Your task to perform on an android device: Is it going to rain tomorrow? Image 0: 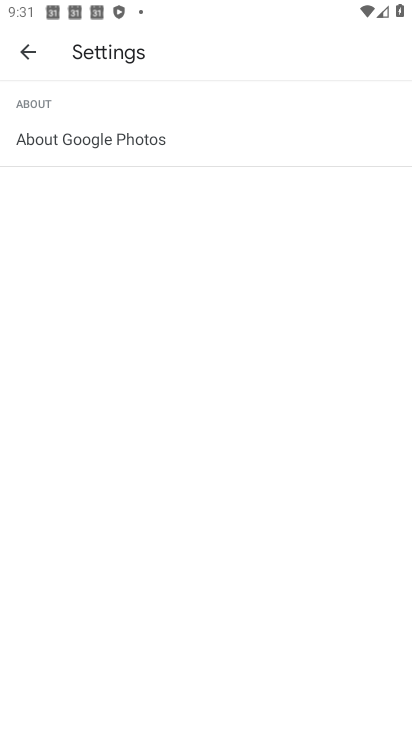
Step 0: press home button
Your task to perform on an android device: Is it going to rain tomorrow? Image 1: 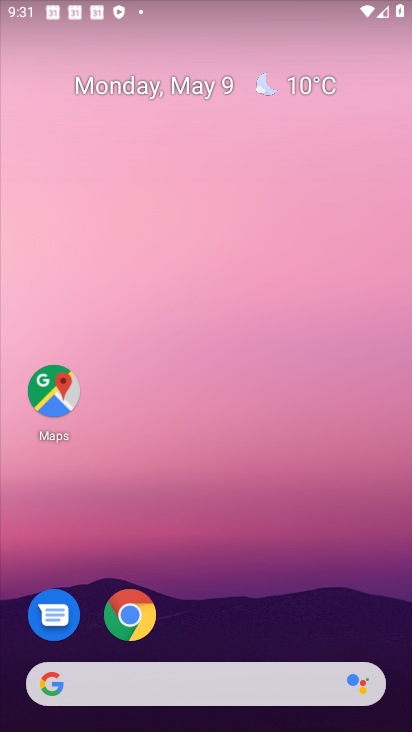
Step 1: click (213, 689)
Your task to perform on an android device: Is it going to rain tomorrow? Image 2: 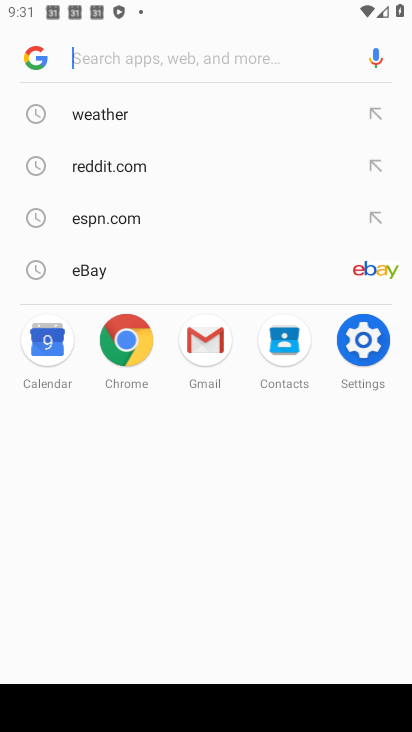
Step 2: type "Is it going to rain tomorrow?"
Your task to perform on an android device: Is it going to rain tomorrow? Image 3: 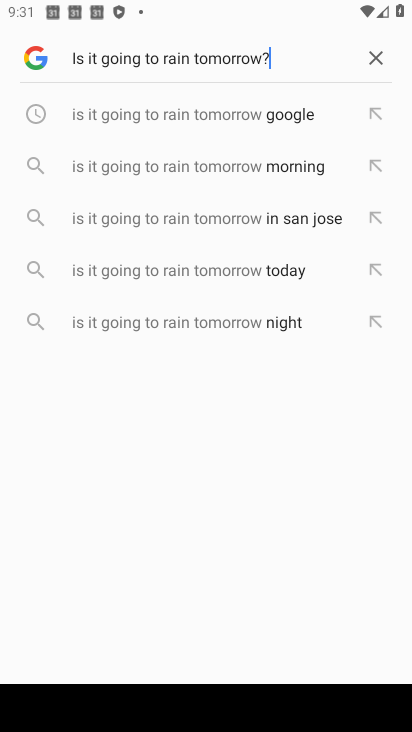
Step 3: click (100, 129)
Your task to perform on an android device: Is it going to rain tomorrow? Image 4: 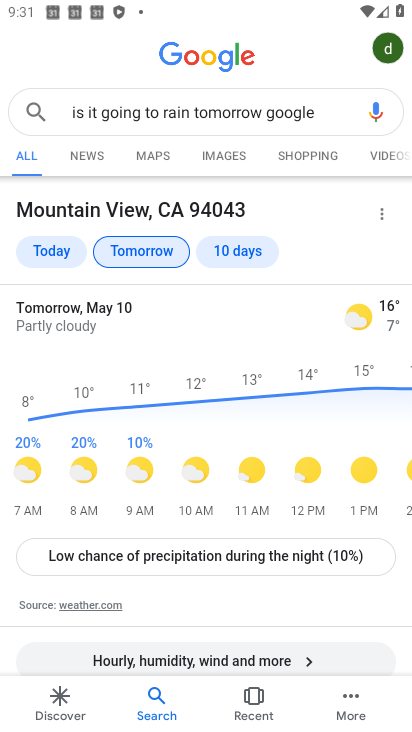
Step 4: task complete